Your task to perform on an android device: turn off priority inbox in the gmail app Image 0: 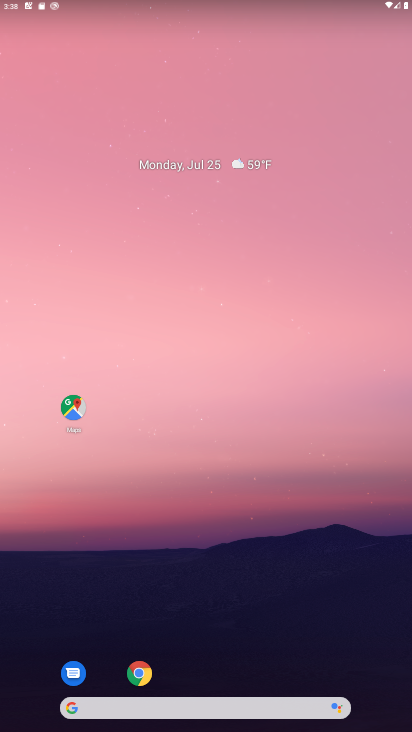
Step 0: drag from (298, 627) to (139, 33)
Your task to perform on an android device: turn off priority inbox in the gmail app Image 1: 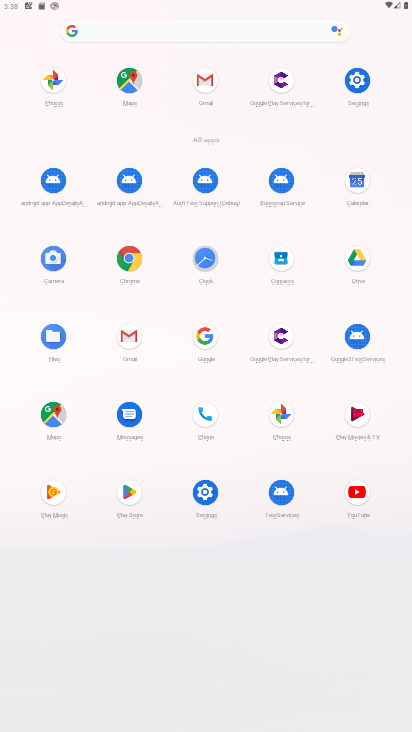
Step 1: click (135, 330)
Your task to perform on an android device: turn off priority inbox in the gmail app Image 2: 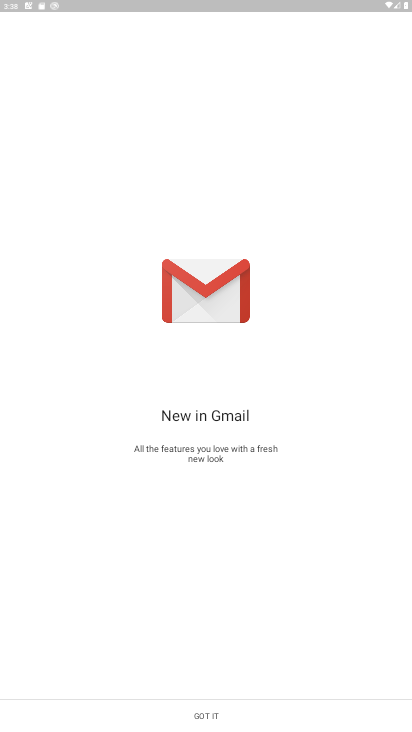
Step 2: click (209, 721)
Your task to perform on an android device: turn off priority inbox in the gmail app Image 3: 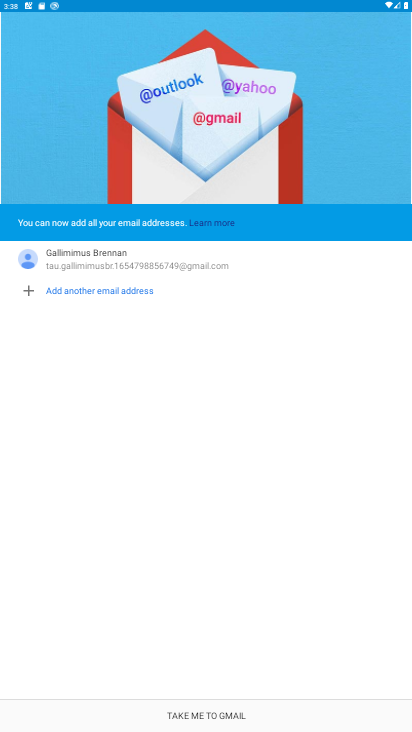
Step 3: click (195, 707)
Your task to perform on an android device: turn off priority inbox in the gmail app Image 4: 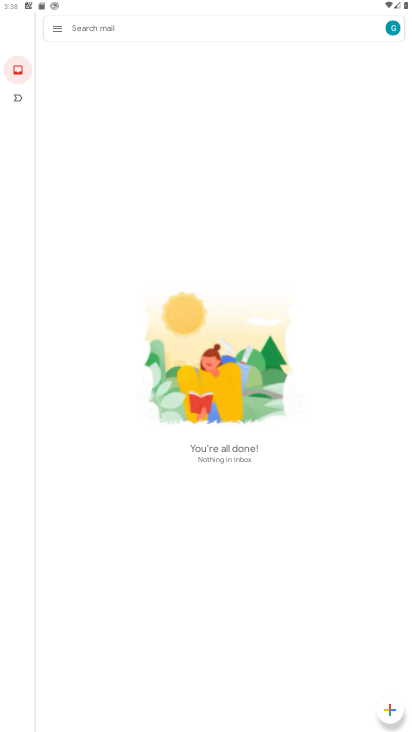
Step 4: click (54, 29)
Your task to perform on an android device: turn off priority inbox in the gmail app Image 5: 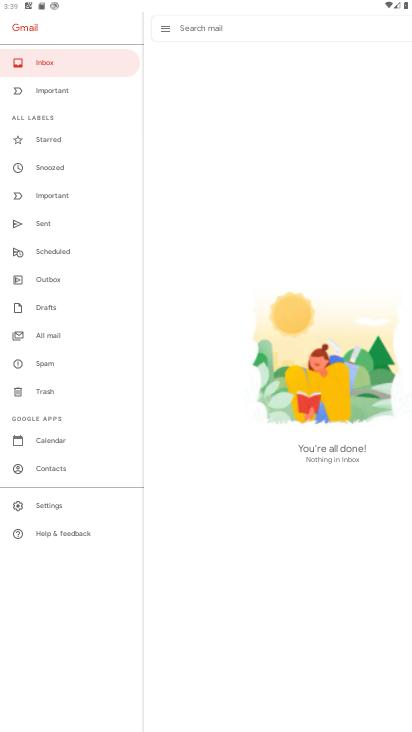
Step 5: click (60, 500)
Your task to perform on an android device: turn off priority inbox in the gmail app Image 6: 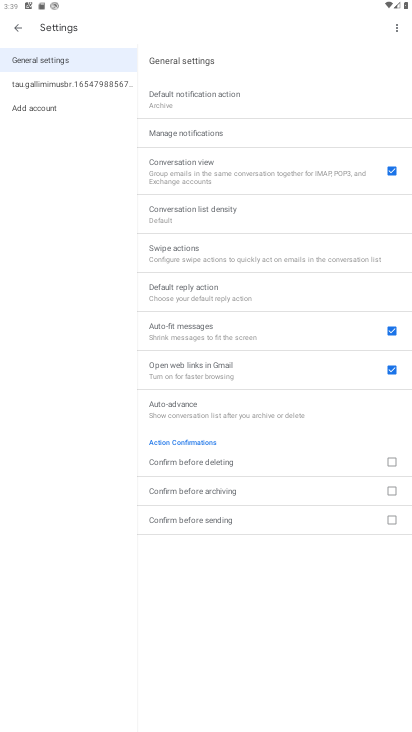
Step 6: click (72, 85)
Your task to perform on an android device: turn off priority inbox in the gmail app Image 7: 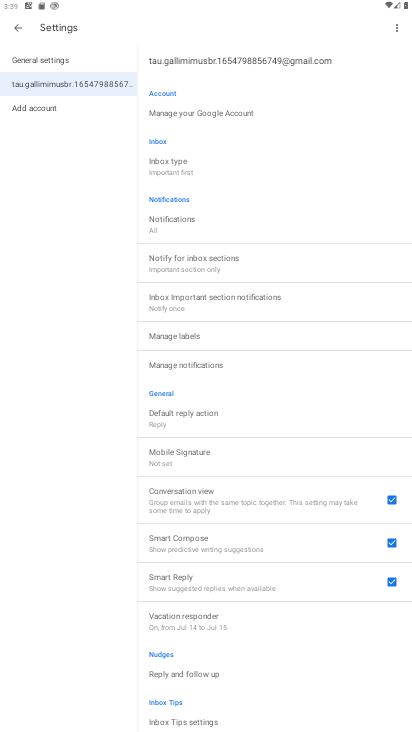
Step 7: click (223, 171)
Your task to perform on an android device: turn off priority inbox in the gmail app Image 8: 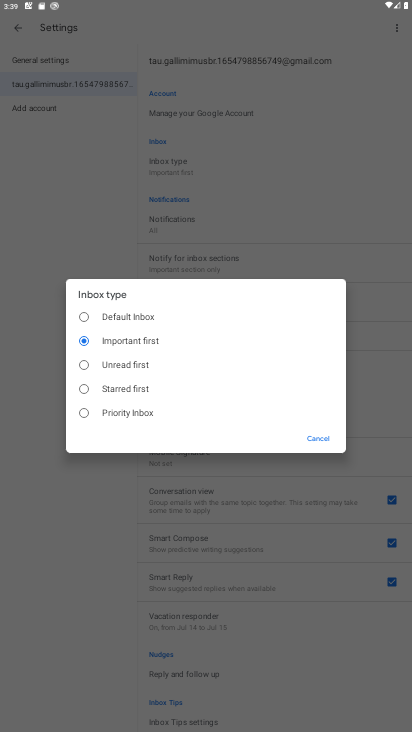
Step 8: task complete